Your task to perform on an android device: set default search engine in the chrome app Image 0: 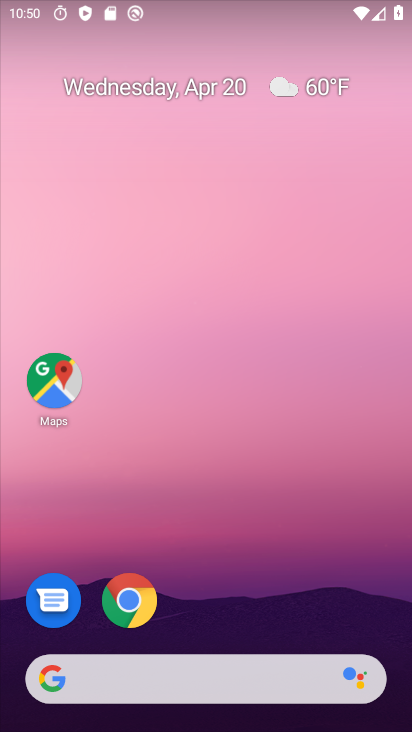
Step 0: click (129, 597)
Your task to perform on an android device: set default search engine in the chrome app Image 1: 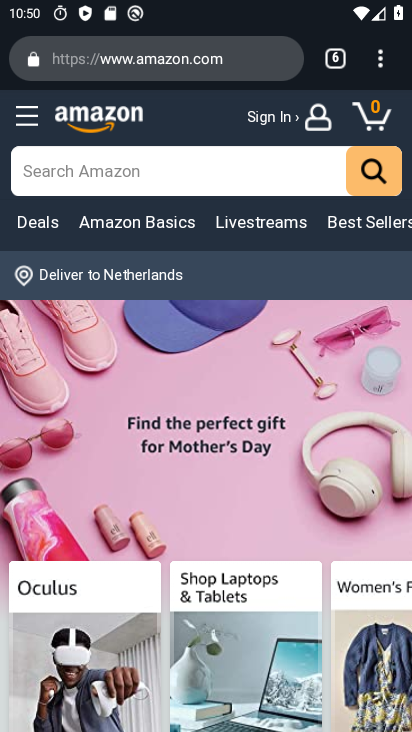
Step 1: click (370, 59)
Your task to perform on an android device: set default search engine in the chrome app Image 2: 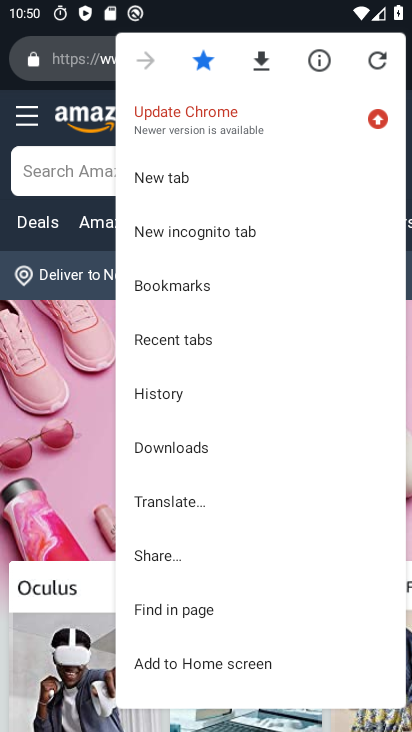
Step 2: drag from (224, 633) to (250, 180)
Your task to perform on an android device: set default search engine in the chrome app Image 3: 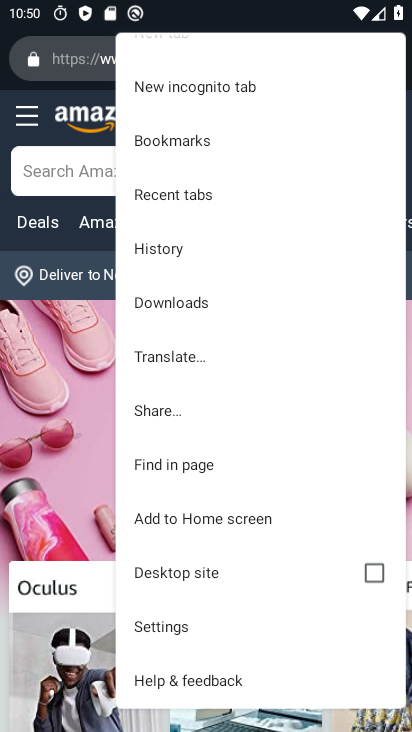
Step 3: click (175, 629)
Your task to perform on an android device: set default search engine in the chrome app Image 4: 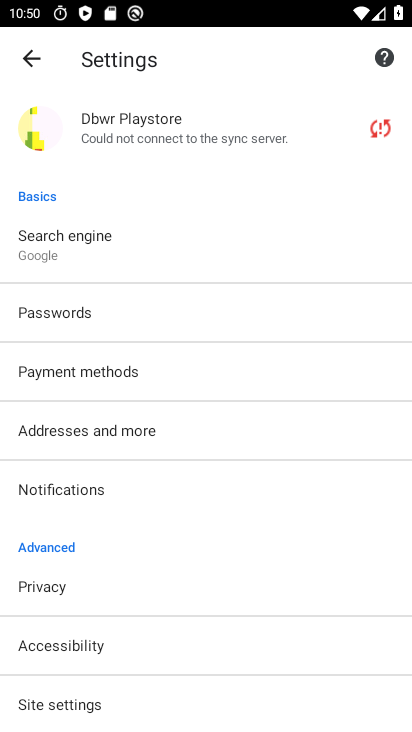
Step 4: click (68, 258)
Your task to perform on an android device: set default search engine in the chrome app Image 5: 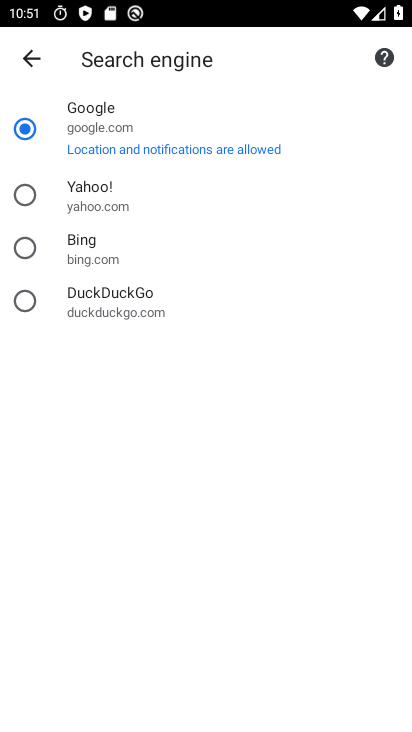
Step 5: click (129, 257)
Your task to perform on an android device: set default search engine in the chrome app Image 6: 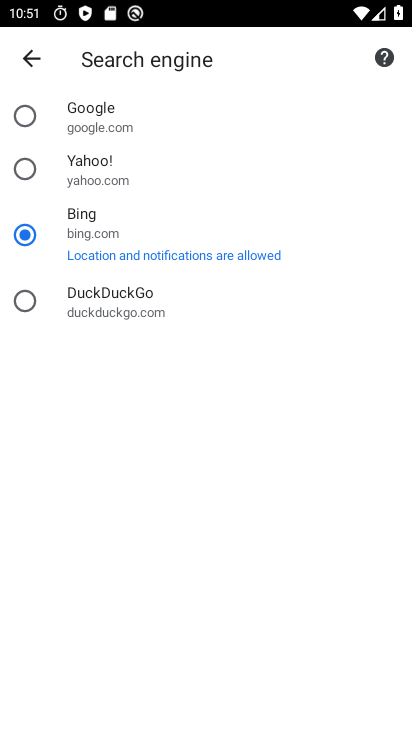
Step 6: task complete